Your task to perform on an android device: open wifi settings Image 0: 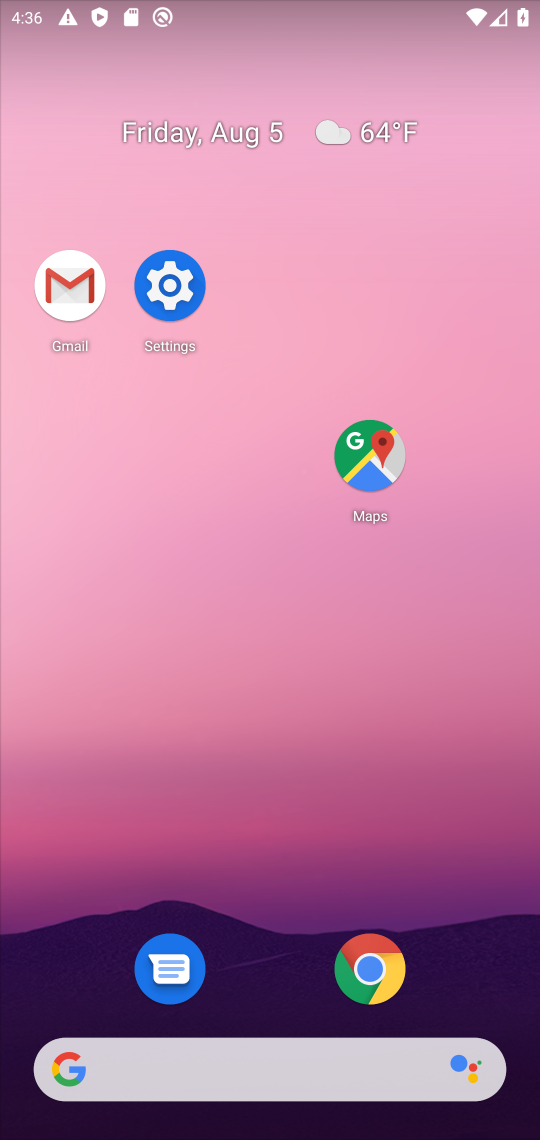
Step 0: click (184, 295)
Your task to perform on an android device: open wifi settings Image 1: 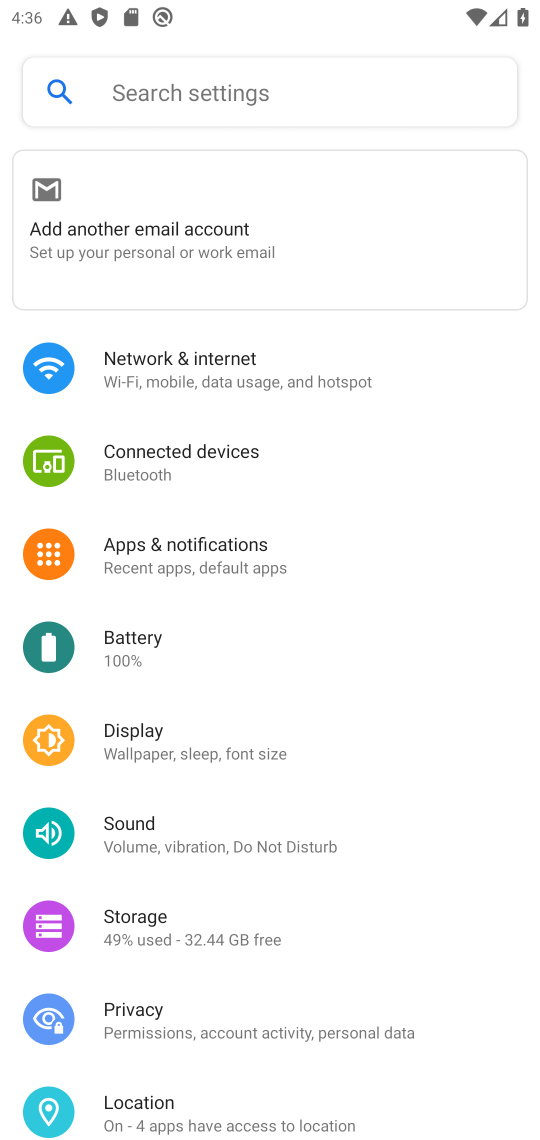
Step 1: click (260, 385)
Your task to perform on an android device: open wifi settings Image 2: 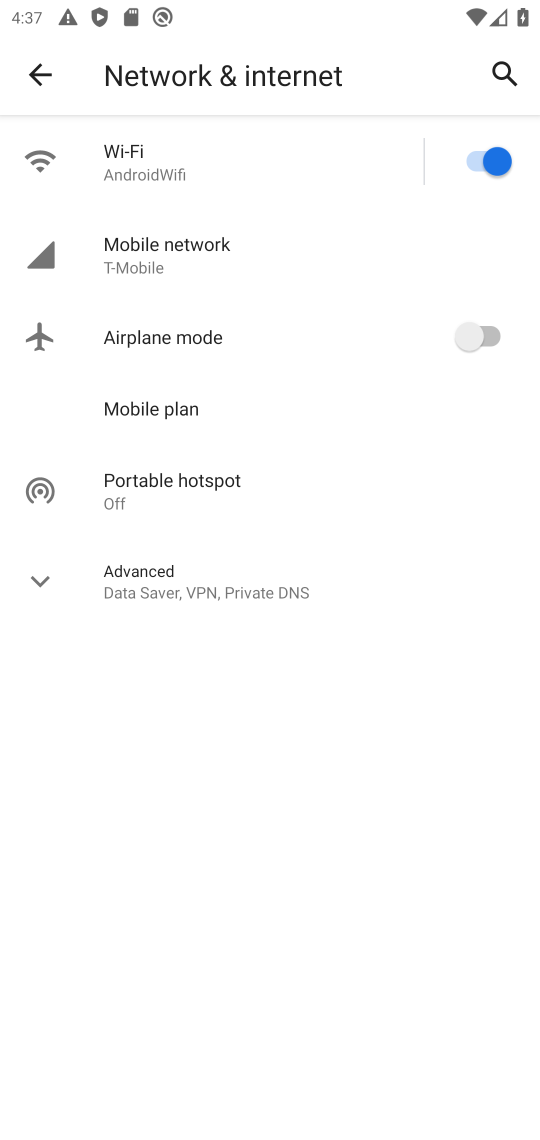
Step 2: click (247, 152)
Your task to perform on an android device: open wifi settings Image 3: 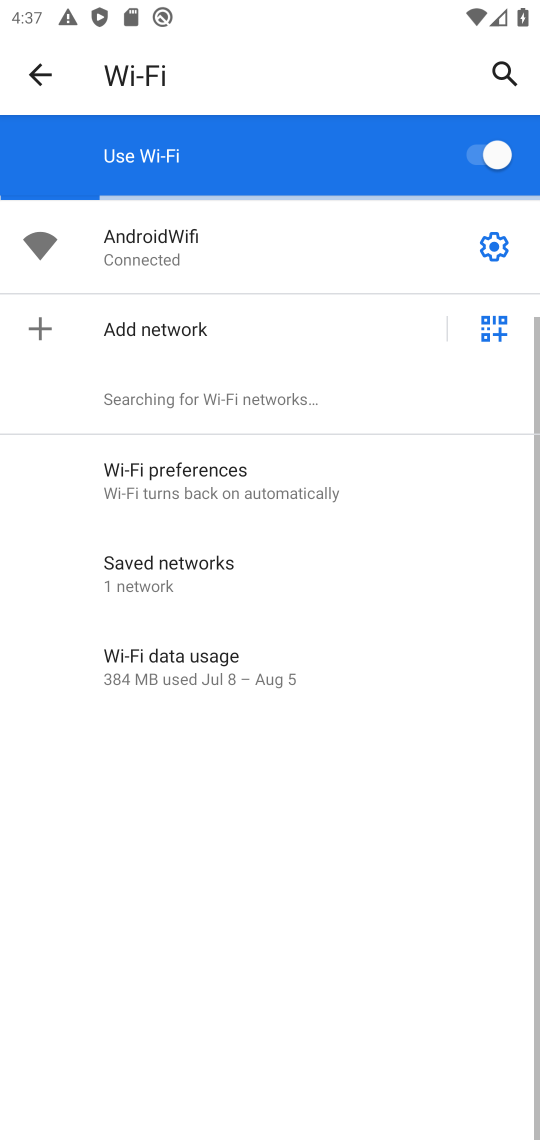
Step 3: click (503, 247)
Your task to perform on an android device: open wifi settings Image 4: 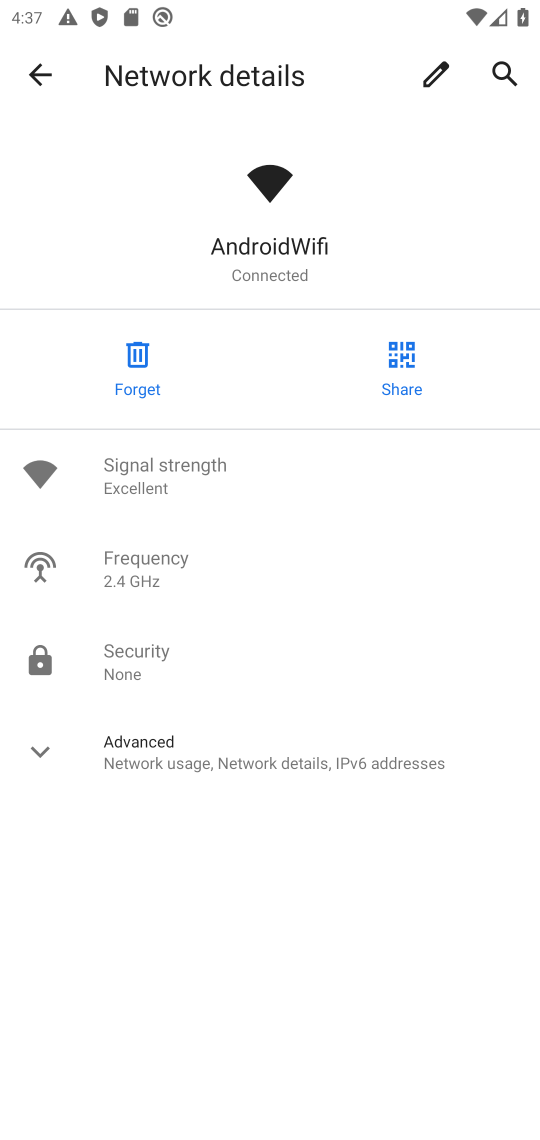
Step 4: task complete